Your task to perform on an android device: star an email in the gmail app Image 0: 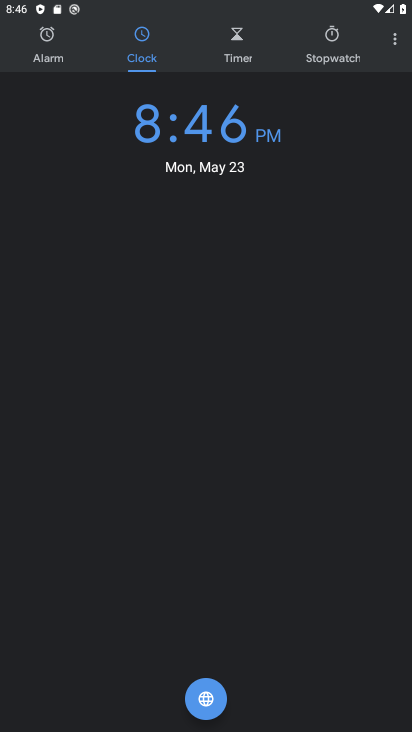
Step 0: press home button
Your task to perform on an android device: star an email in the gmail app Image 1: 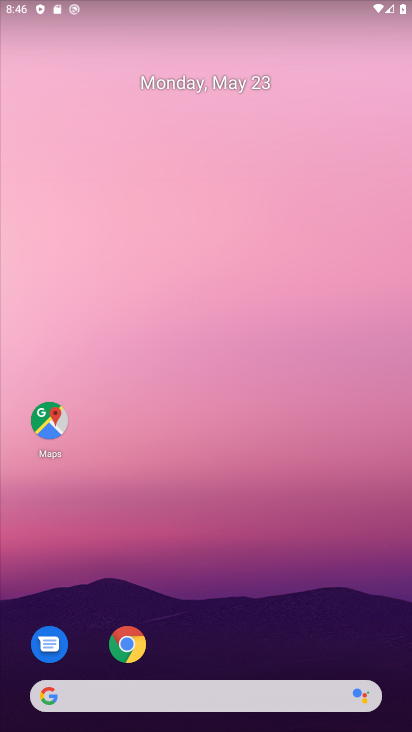
Step 1: drag from (216, 659) to (252, 87)
Your task to perform on an android device: star an email in the gmail app Image 2: 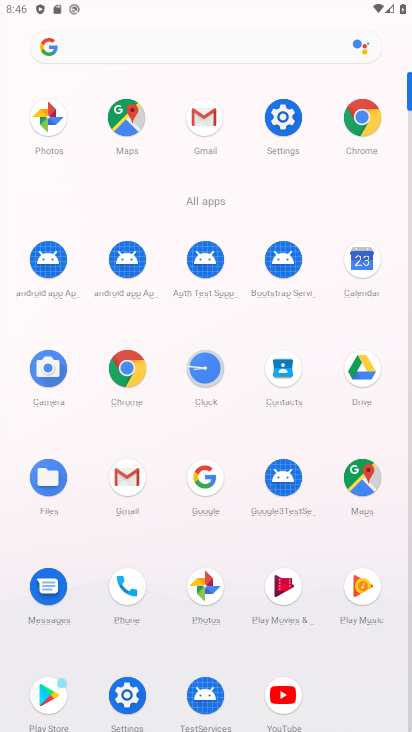
Step 2: click (127, 469)
Your task to perform on an android device: star an email in the gmail app Image 3: 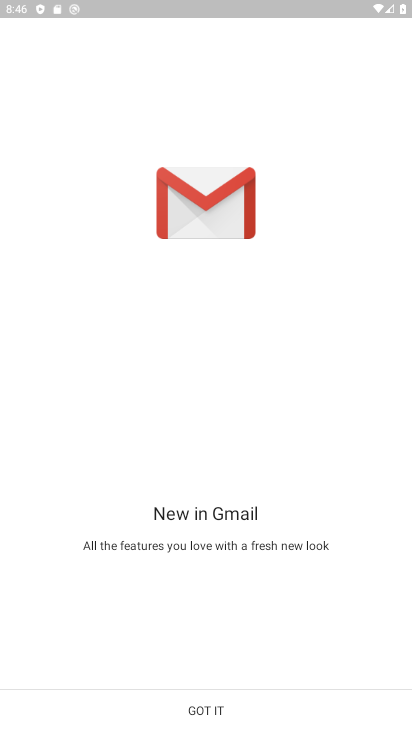
Step 3: click (206, 712)
Your task to perform on an android device: star an email in the gmail app Image 4: 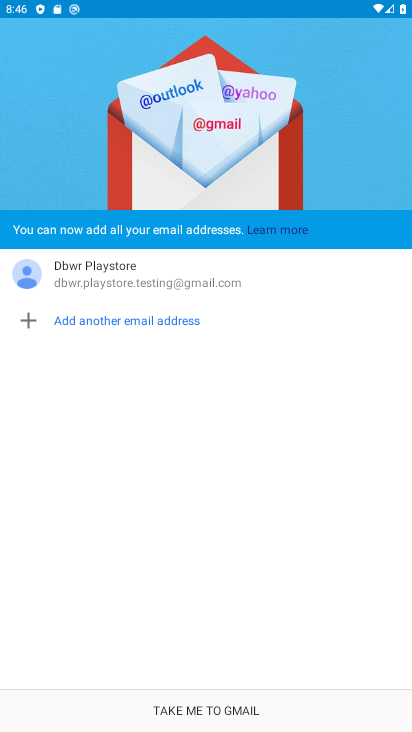
Step 4: click (207, 703)
Your task to perform on an android device: star an email in the gmail app Image 5: 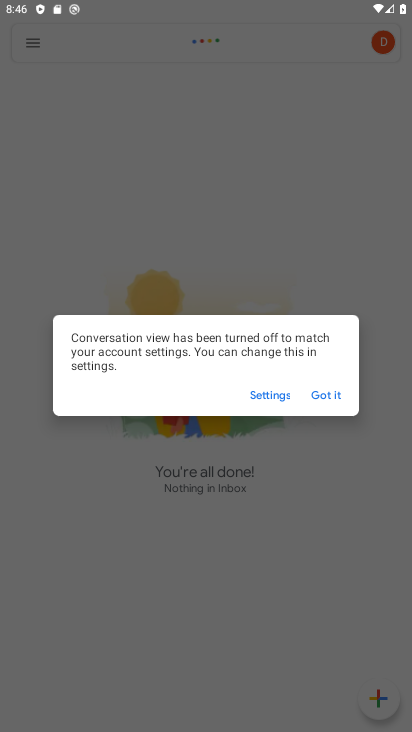
Step 5: click (319, 393)
Your task to perform on an android device: star an email in the gmail app Image 6: 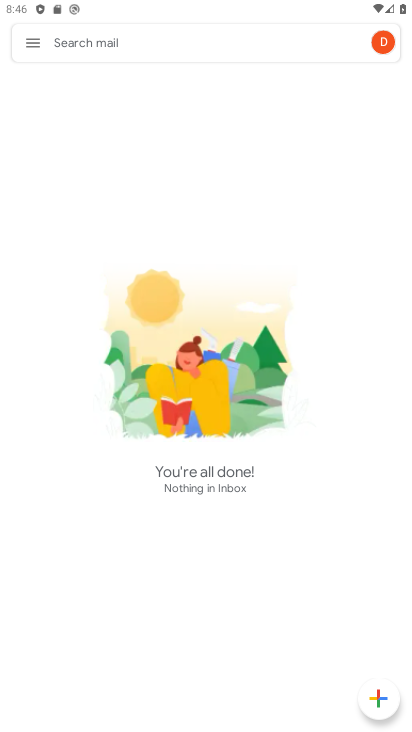
Step 6: task complete